Your task to perform on an android device: clear all cookies in the chrome app Image 0: 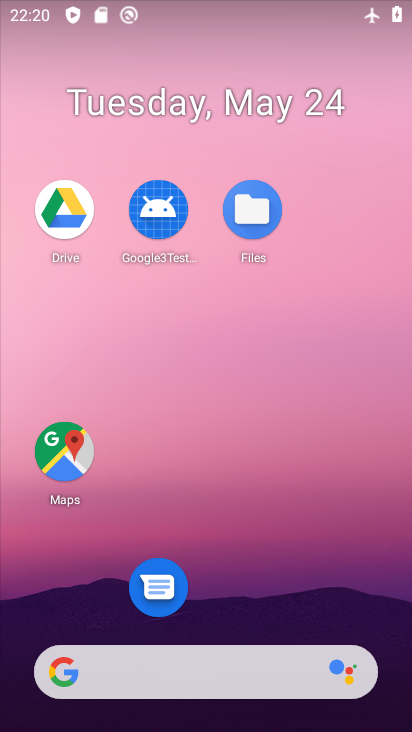
Step 0: drag from (202, 620) to (207, 112)
Your task to perform on an android device: clear all cookies in the chrome app Image 1: 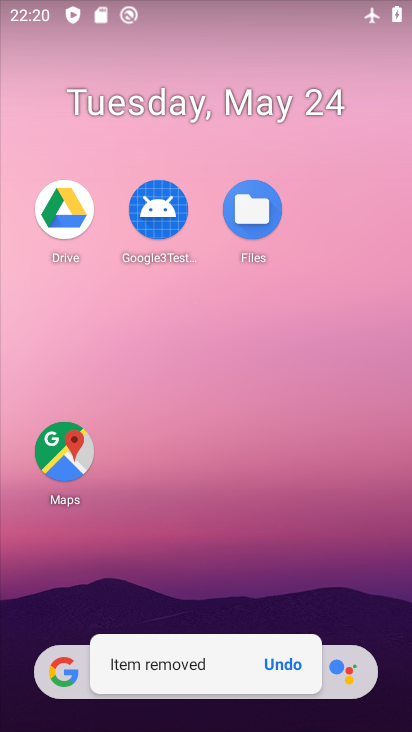
Step 1: drag from (213, 590) to (225, 118)
Your task to perform on an android device: clear all cookies in the chrome app Image 2: 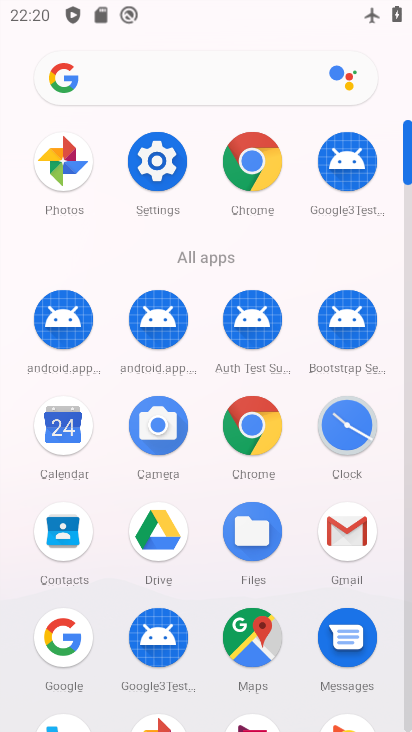
Step 2: click (242, 182)
Your task to perform on an android device: clear all cookies in the chrome app Image 3: 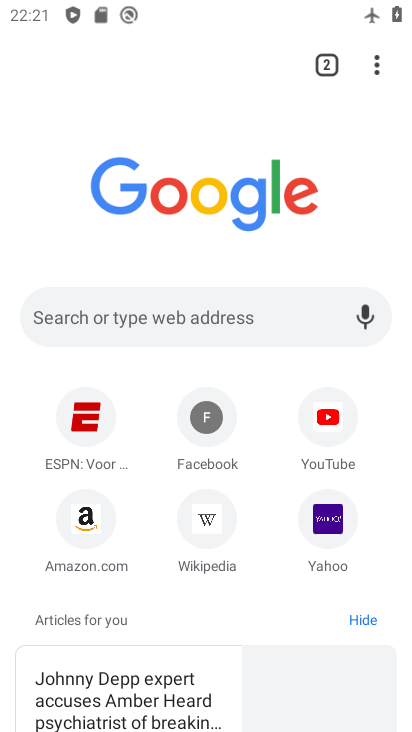
Step 3: click (374, 65)
Your task to perform on an android device: clear all cookies in the chrome app Image 4: 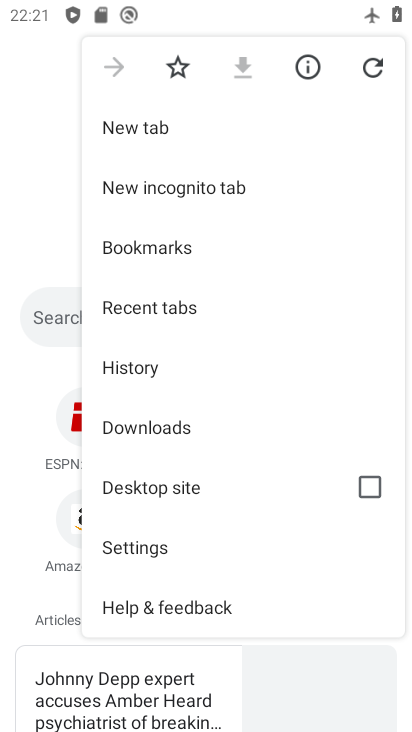
Step 4: click (142, 547)
Your task to perform on an android device: clear all cookies in the chrome app Image 5: 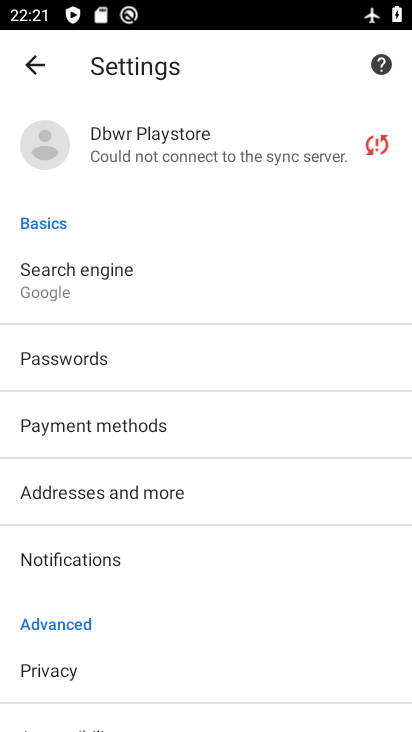
Step 5: drag from (170, 546) to (193, 131)
Your task to perform on an android device: clear all cookies in the chrome app Image 6: 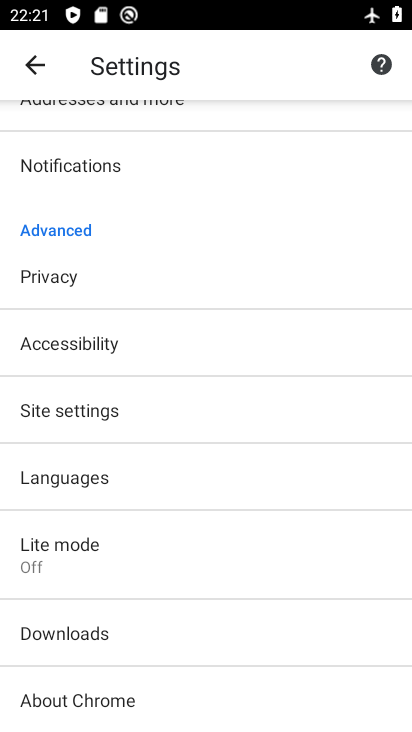
Step 6: click (43, 296)
Your task to perform on an android device: clear all cookies in the chrome app Image 7: 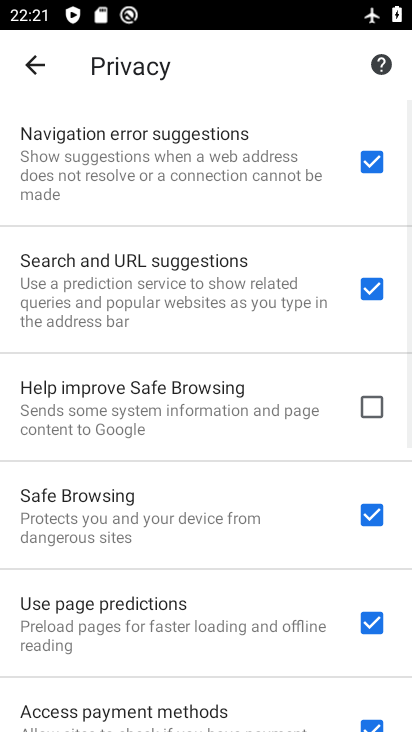
Step 7: drag from (147, 581) to (178, 58)
Your task to perform on an android device: clear all cookies in the chrome app Image 8: 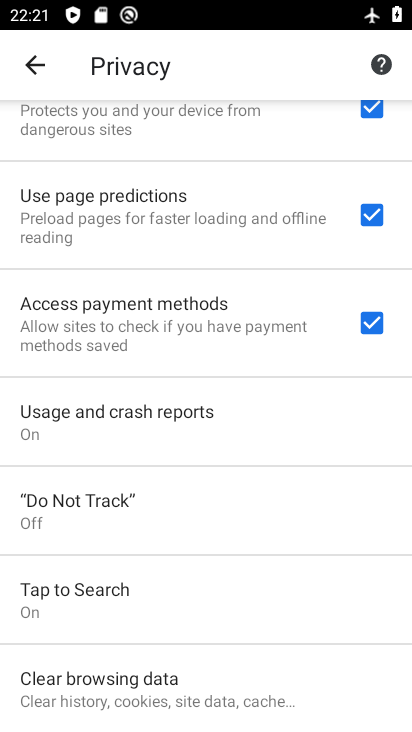
Step 8: click (88, 703)
Your task to perform on an android device: clear all cookies in the chrome app Image 9: 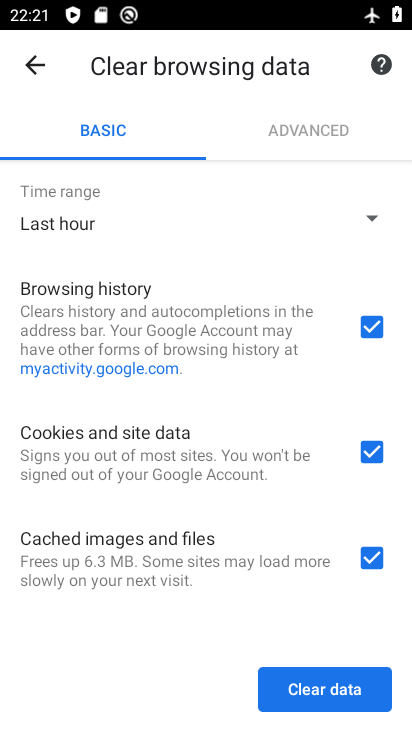
Step 9: click (308, 685)
Your task to perform on an android device: clear all cookies in the chrome app Image 10: 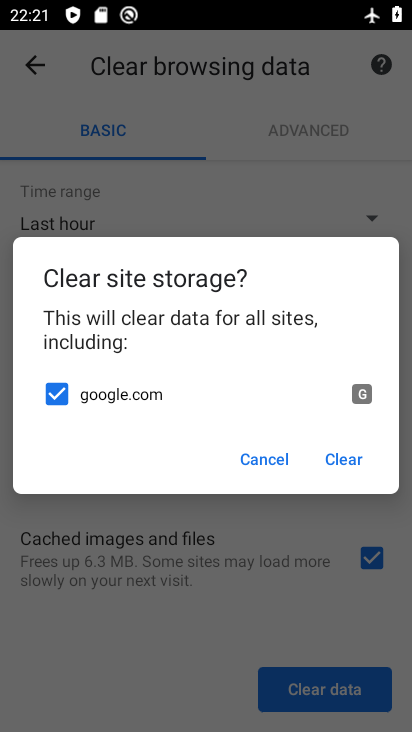
Step 10: click (352, 473)
Your task to perform on an android device: clear all cookies in the chrome app Image 11: 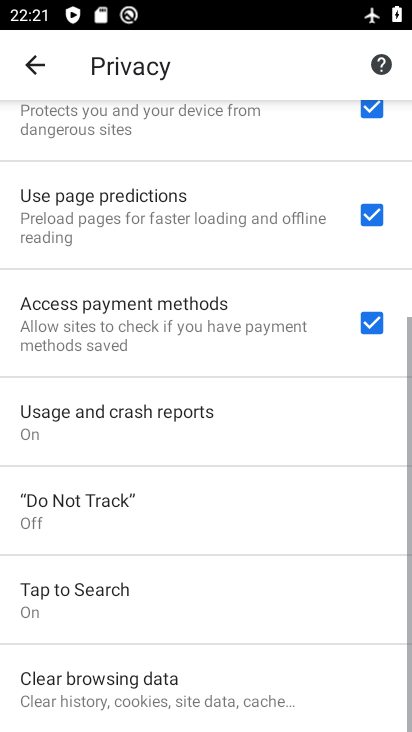
Step 11: task complete